Your task to perform on an android device: Open Android settings Image 0: 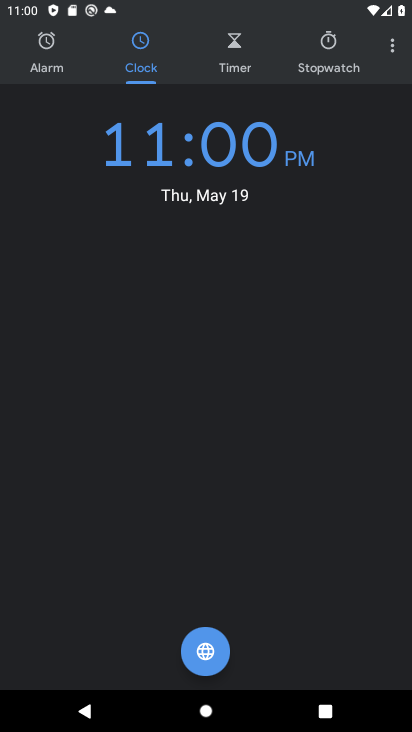
Step 0: press home button
Your task to perform on an android device: Open Android settings Image 1: 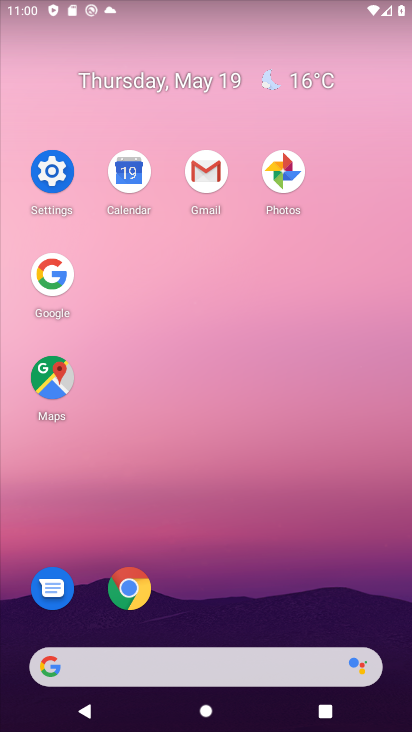
Step 1: click (54, 155)
Your task to perform on an android device: Open Android settings Image 2: 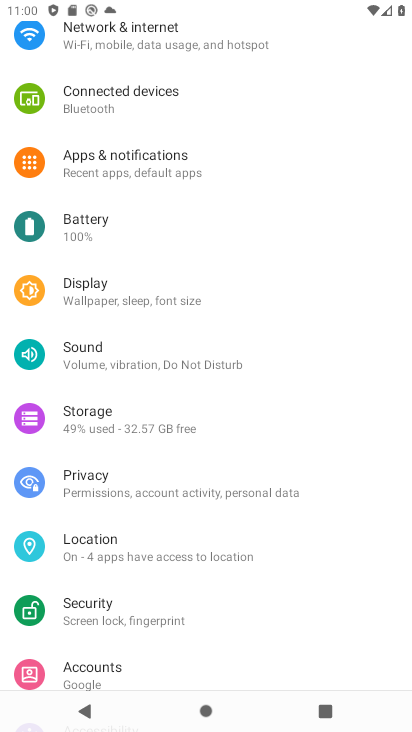
Step 2: task complete